Your task to perform on an android device: turn off data saver in the chrome app Image 0: 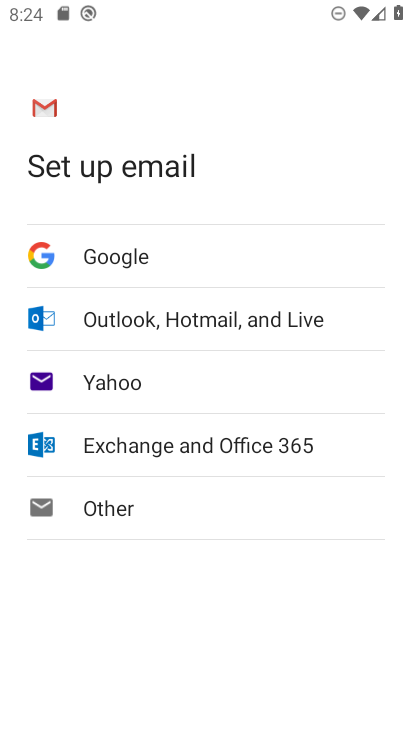
Step 0: press back button
Your task to perform on an android device: turn off data saver in the chrome app Image 1: 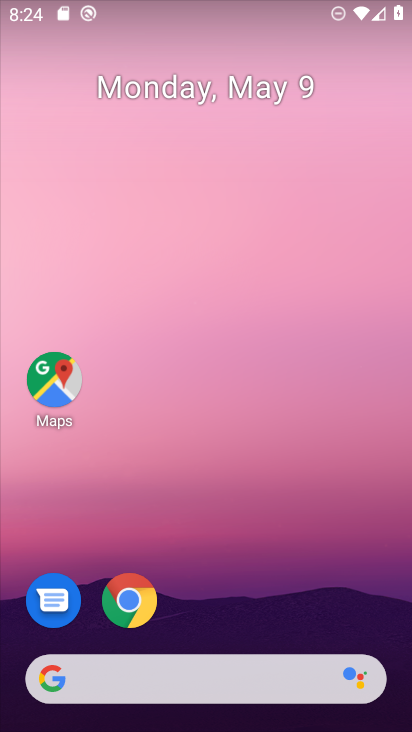
Step 1: drag from (284, 501) to (269, 20)
Your task to perform on an android device: turn off data saver in the chrome app Image 2: 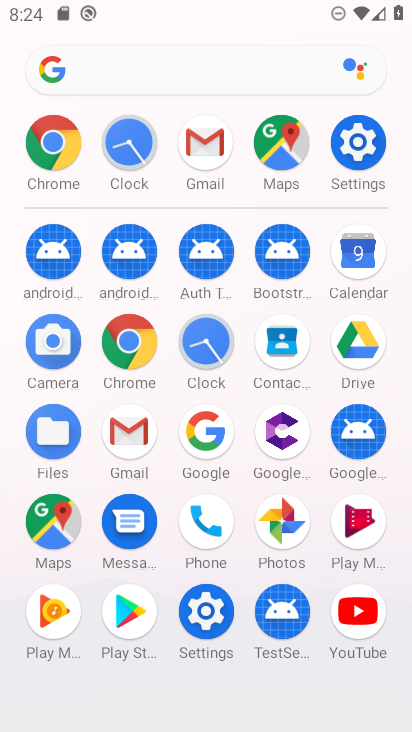
Step 2: click (129, 338)
Your task to perform on an android device: turn off data saver in the chrome app Image 3: 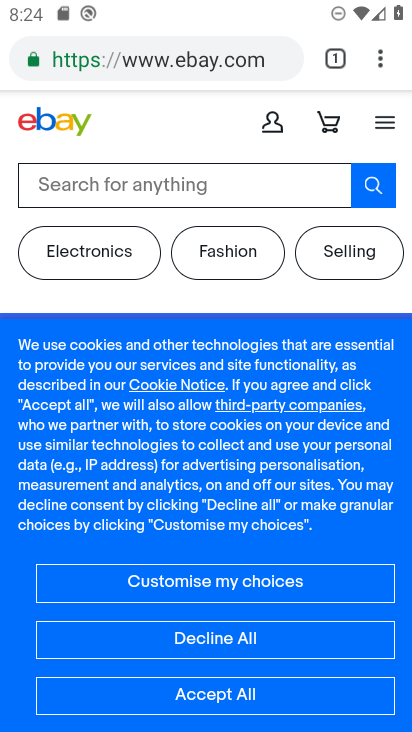
Step 3: drag from (377, 58) to (202, 615)
Your task to perform on an android device: turn off data saver in the chrome app Image 4: 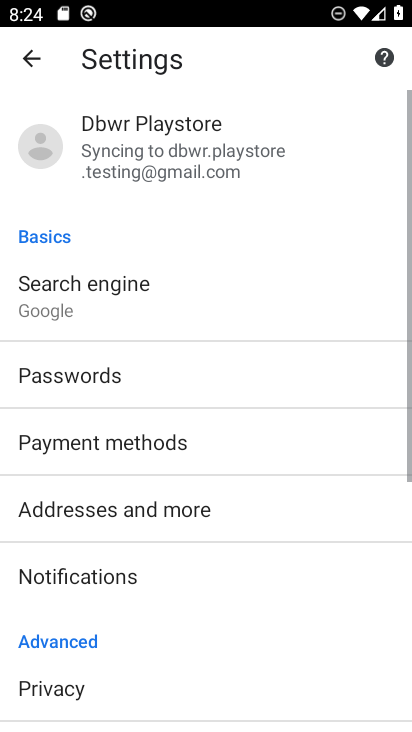
Step 4: drag from (241, 591) to (266, 247)
Your task to perform on an android device: turn off data saver in the chrome app Image 5: 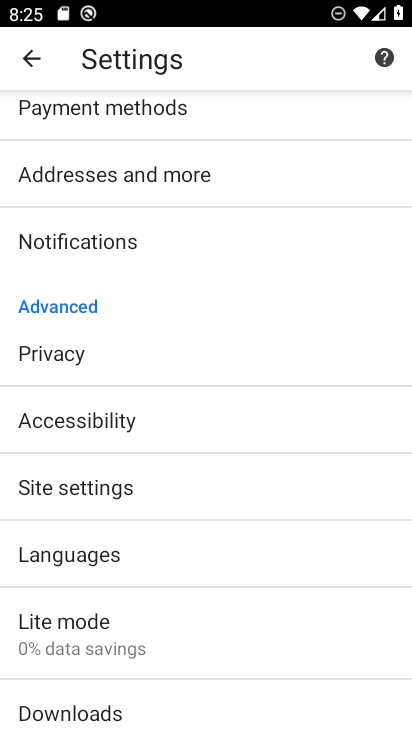
Step 5: click (158, 643)
Your task to perform on an android device: turn off data saver in the chrome app Image 6: 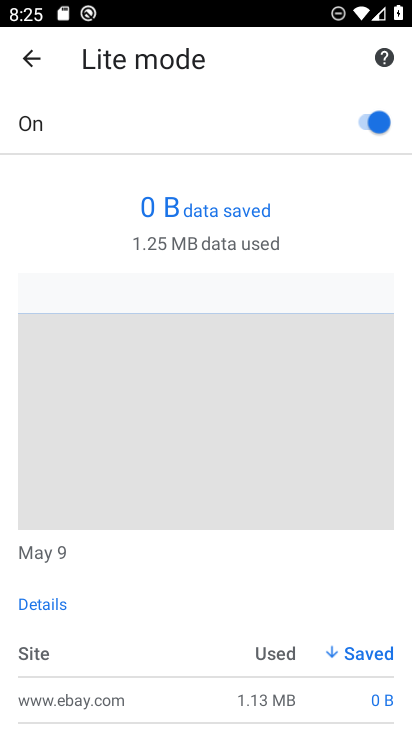
Step 6: click (364, 121)
Your task to perform on an android device: turn off data saver in the chrome app Image 7: 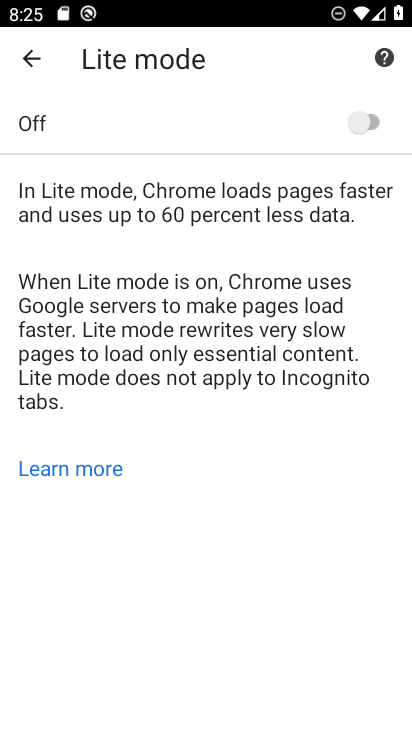
Step 7: task complete